Your task to perform on an android device: Add "jbl flip 4" to the cart on target Image 0: 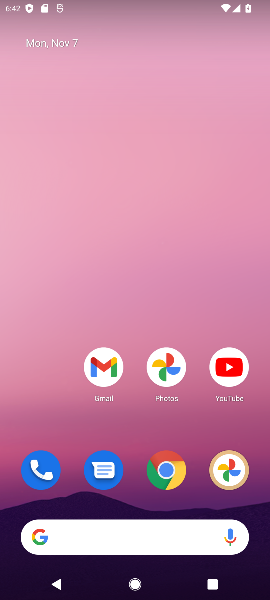
Step 0: click (163, 476)
Your task to perform on an android device: Add "jbl flip 4" to the cart on target Image 1: 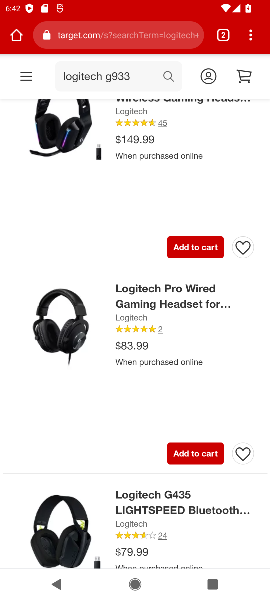
Step 1: click (106, 46)
Your task to perform on an android device: Add "jbl flip 4" to the cart on target Image 2: 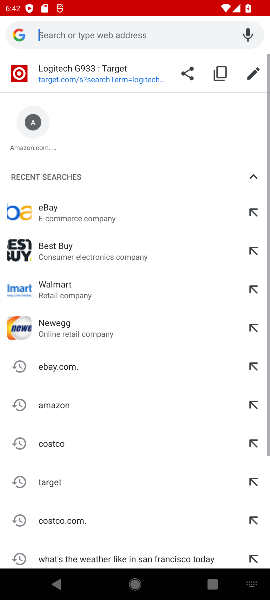
Step 2: click (90, 40)
Your task to perform on an android device: Add "jbl flip 4" to the cart on target Image 3: 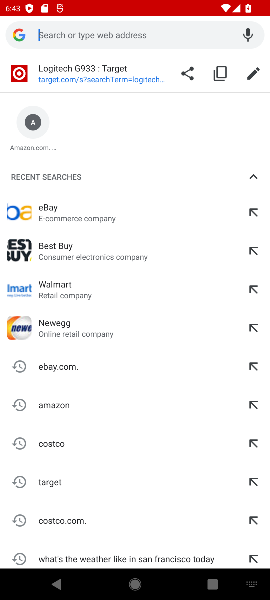
Step 3: click (83, 205)
Your task to perform on an android device: Add "jbl flip 4" to the cart on target Image 4: 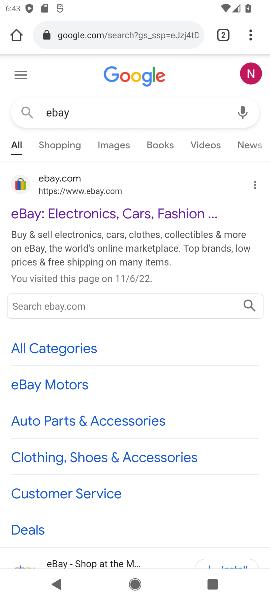
Step 4: click (101, 222)
Your task to perform on an android device: Add "jbl flip 4" to the cart on target Image 5: 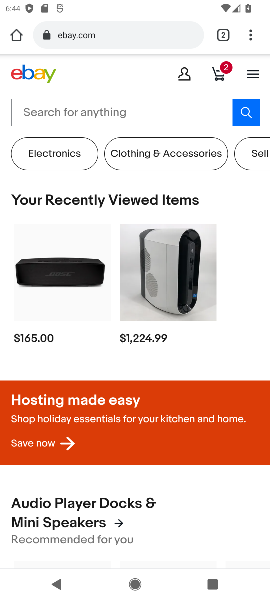
Step 5: click (81, 111)
Your task to perform on an android device: Add "jbl flip 4" to the cart on target Image 6: 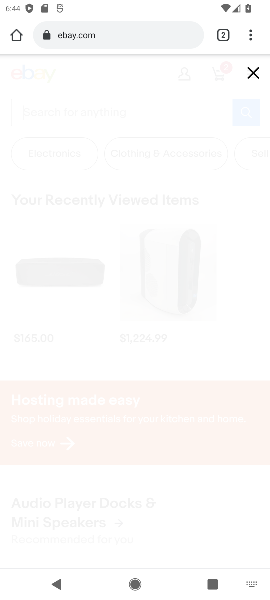
Step 6: click (81, 111)
Your task to perform on an android device: Add "jbl flip 4" to the cart on target Image 7: 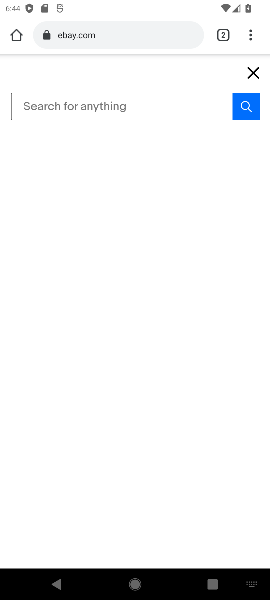
Step 7: click (81, 111)
Your task to perform on an android device: Add "jbl flip 4" to the cart on target Image 8: 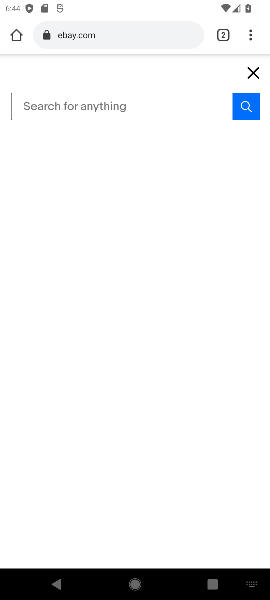
Step 8: click (102, 118)
Your task to perform on an android device: Add "jbl flip 4" to the cart on target Image 9: 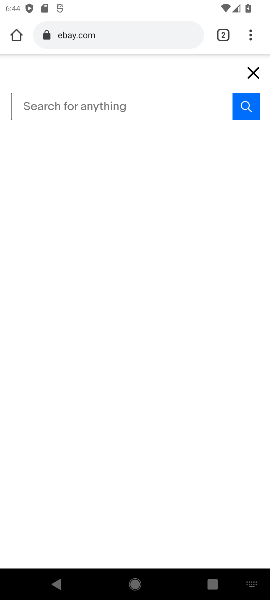
Step 9: click (73, 97)
Your task to perform on an android device: Add "jbl flip 4" to the cart on target Image 10: 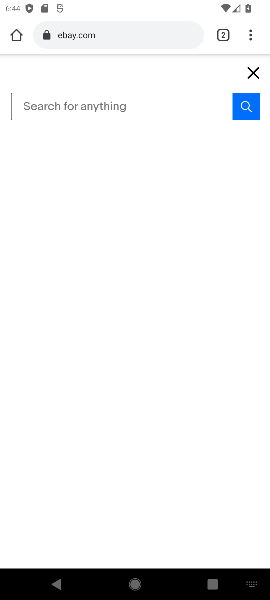
Step 10: click (133, 103)
Your task to perform on an android device: Add "jbl flip 4" to the cart on target Image 11: 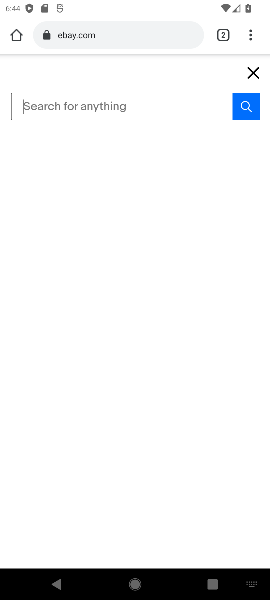
Step 11: type "jbl flip 4"
Your task to perform on an android device: Add "jbl flip 4" to the cart on target Image 12: 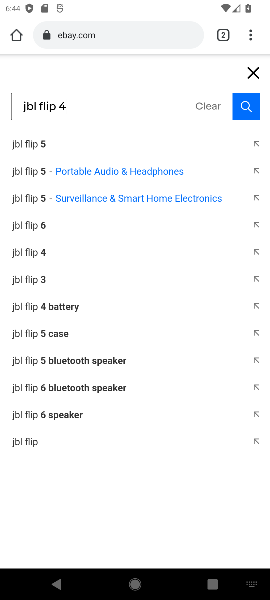
Step 12: click (245, 110)
Your task to perform on an android device: Add "jbl flip 4" to the cart on target Image 13: 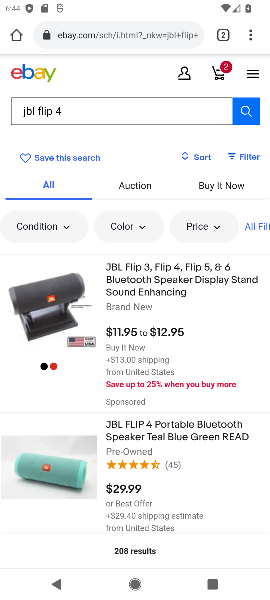
Step 13: click (147, 292)
Your task to perform on an android device: Add "jbl flip 4" to the cart on target Image 14: 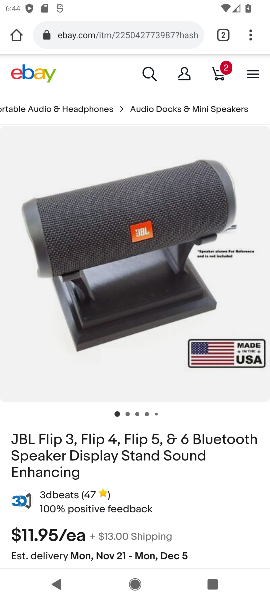
Step 14: drag from (56, 532) to (114, 192)
Your task to perform on an android device: Add "jbl flip 4" to the cart on target Image 15: 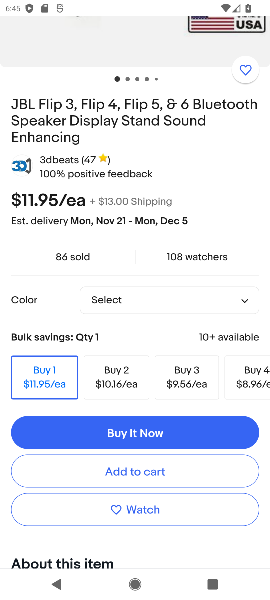
Step 15: drag from (134, 502) to (114, 301)
Your task to perform on an android device: Add "jbl flip 4" to the cart on target Image 16: 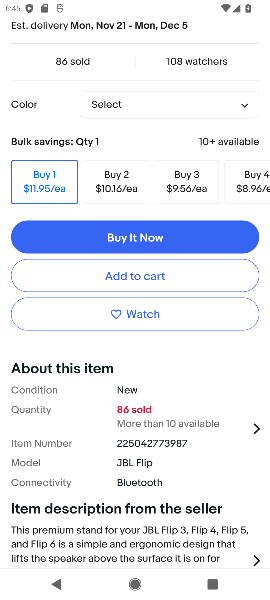
Step 16: click (154, 278)
Your task to perform on an android device: Add "jbl flip 4" to the cart on target Image 17: 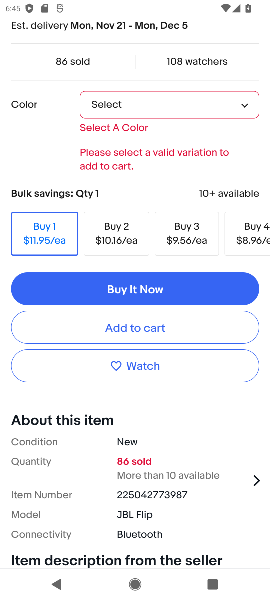
Step 17: click (216, 93)
Your task to perform on an android device: Add "jbl flip 4" to the cart on target Image 18: 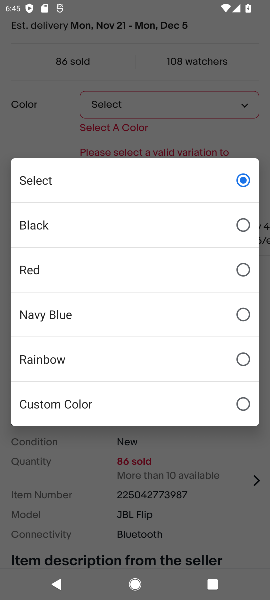
Step 18: click (240, 271)
Your task to perform on an android device: Add "jbl flip 4" to the cart on target Image 19: 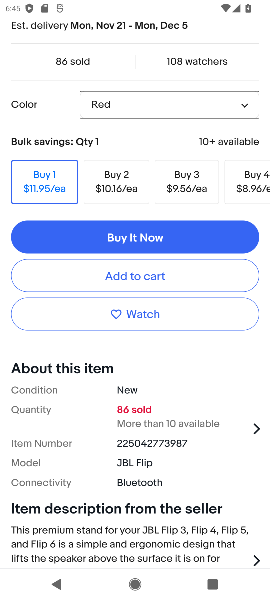
Step 19: click (171, 268)
Your task to perform on an android device: Add "jbl flip 4" to the cart on target Image 20: 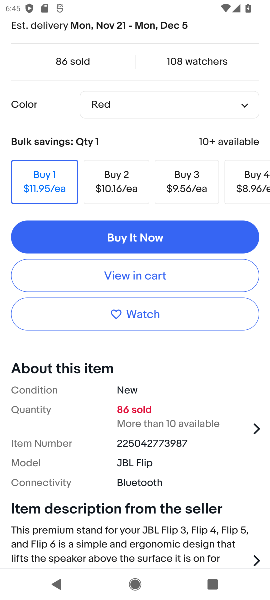
Step 20: task complete